Your task to perform on an android device: change the upload size in google photos Image 0: 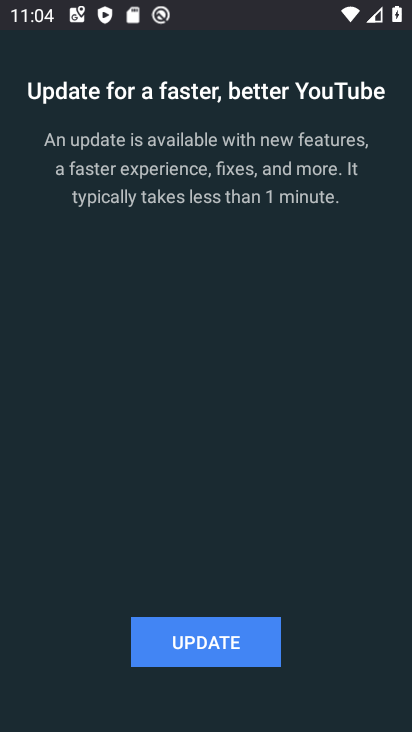
Step 0: press back button
Your task to perform on an android device: change the upload size in google photos Image 1: 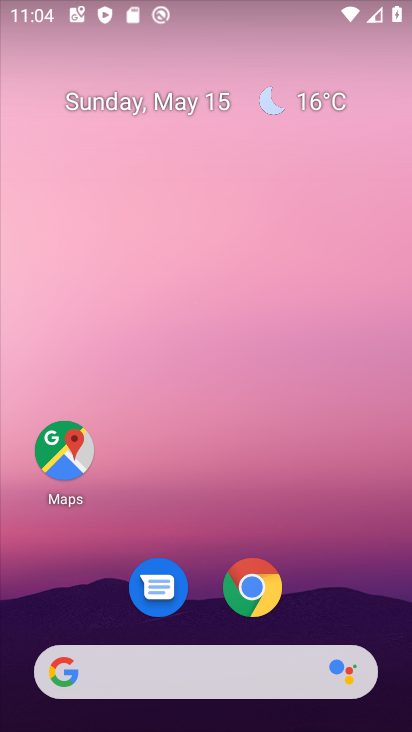
Step 1: drag from (322, 552) to (248, 27)
Your task to perform on an android device: change the upload size in google photos Image 2: 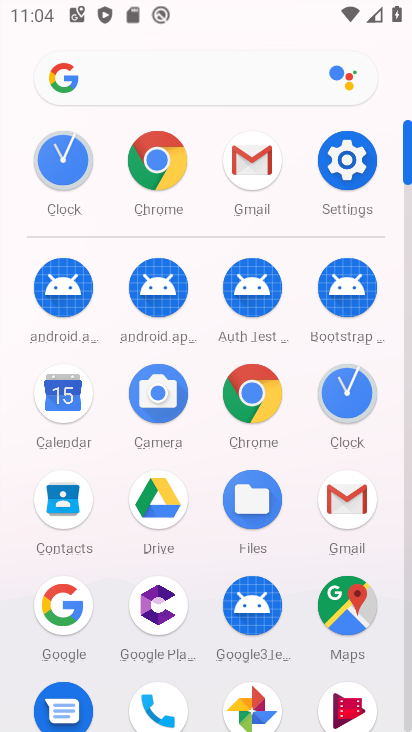
Step 2: drag from (5, 604) to (37, 189)
Your task to perform on an android device: change the upload size in google photos Image 3: 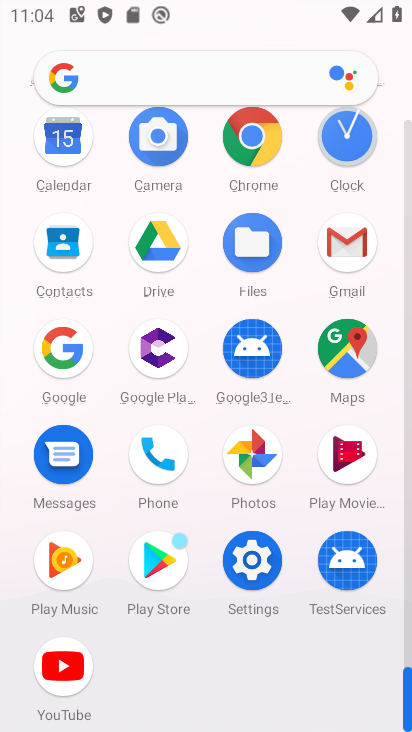
Step 3: click (254, 449)
Your task to perform on an android device: change the upload size in google photos Image 4: 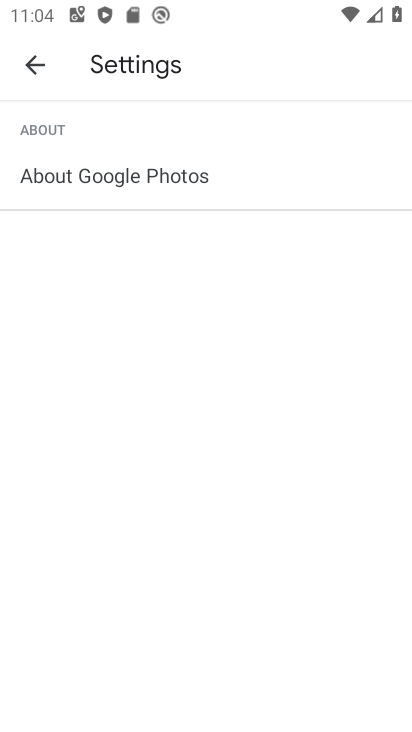
Step 4: click (38, 64)
Your task to perform on an android device: change the upload size in google photos Image 5: 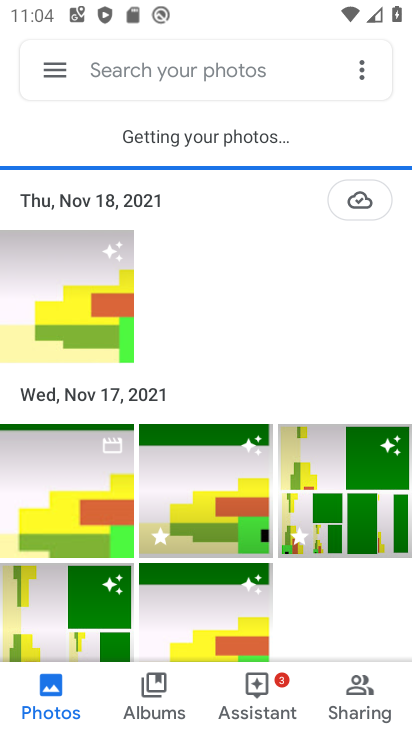
Step 5: click (46, 68)
Your task to perform on an android device: change the upload size in google photos Image 6: 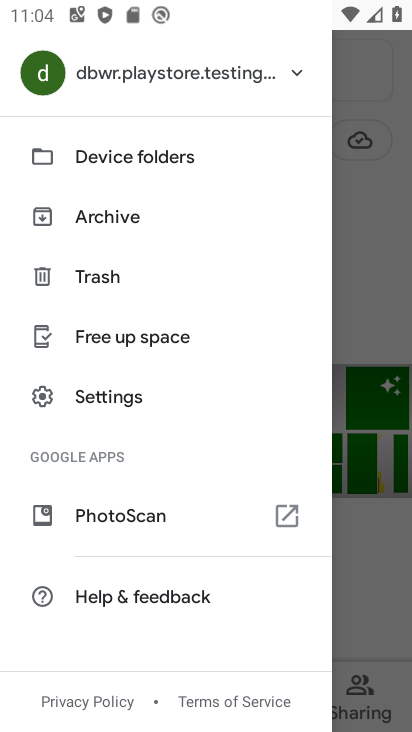
Step 6: click (123, 398)
Your task to perform on an android device: change the upload size in google photos Image 7: 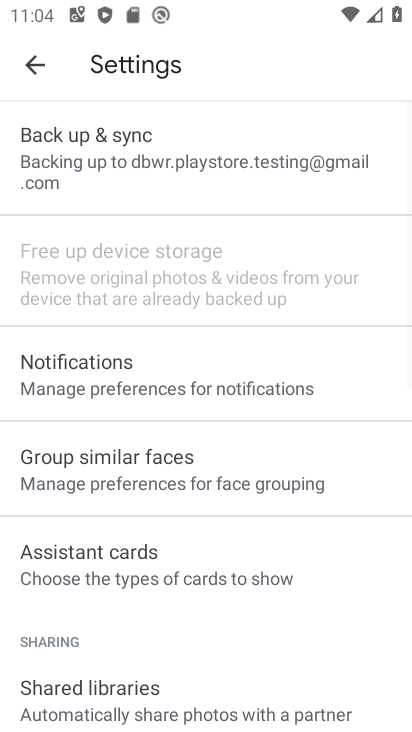
Step 7: click (160, 154)
Your task to perform on an android device: change the upload size in google photos Image 8: 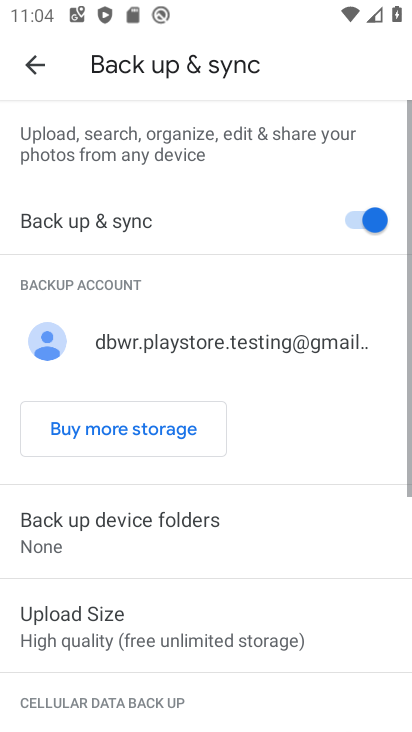
Step 8: drag from (246, 570) to (237, 249)
Your task to perform on an android device: change the upload size in google photos Image 9: 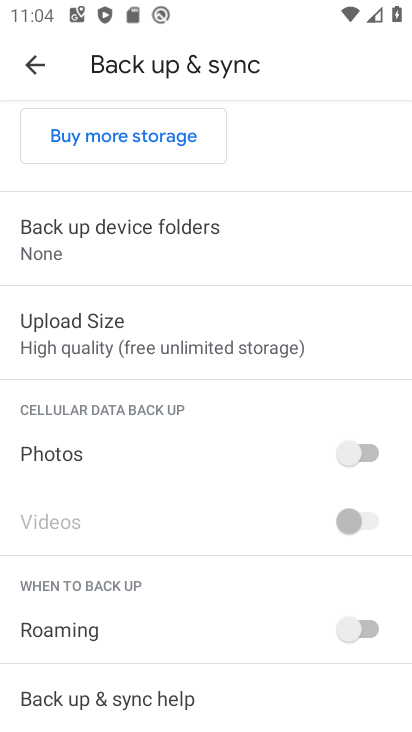
Step 9: click (177, 333)
Your task to perform on an android device: change the upload size in google photos Image 10: 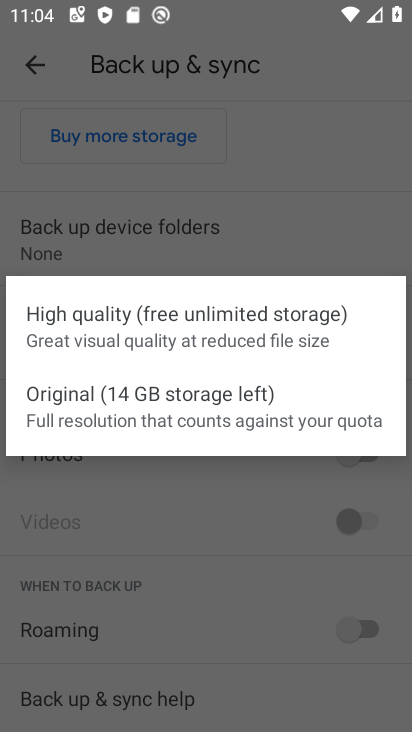
Step 10: click (151, 388)
Your task to perform on an android device: change the upload size in google photos Image 11: 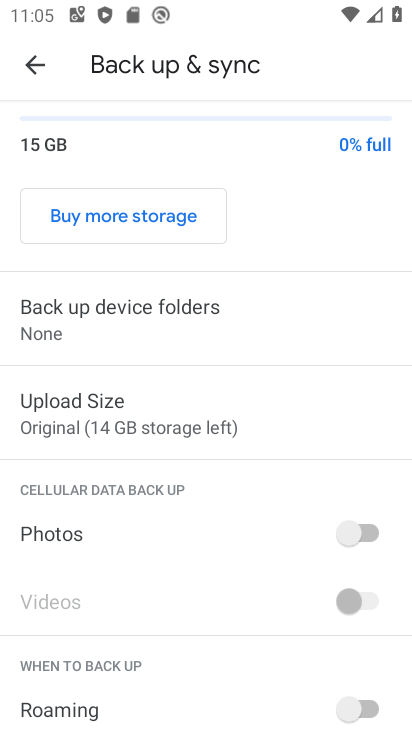
Step 11: task complete